Your task to perform on an android device: turn notification dots off Image 0: 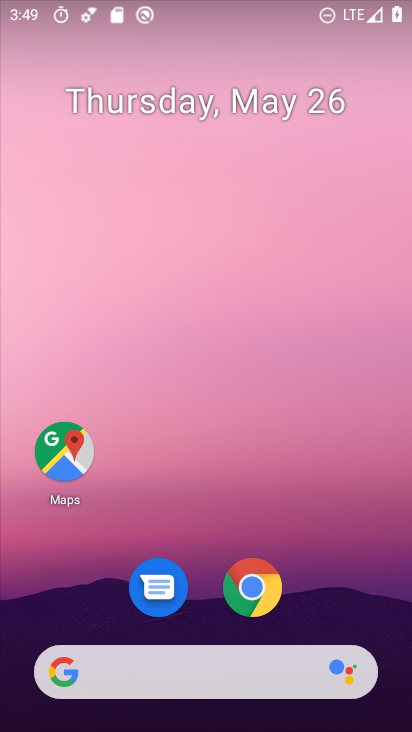
Step 0: drag from (317, 528) to (298, 170)
Your task to perform on an android device: turn notification dots off Image 1: 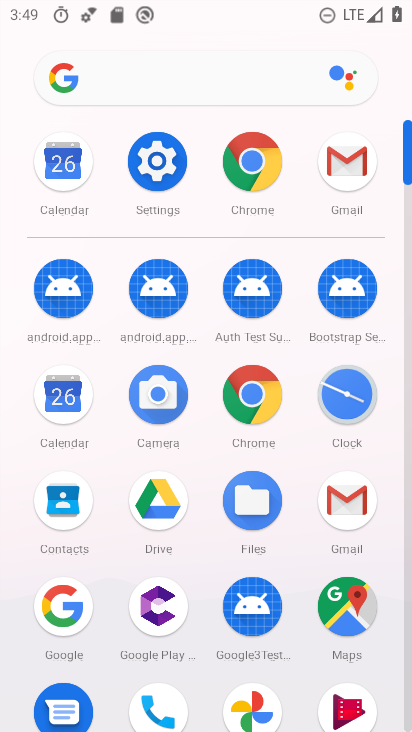
Step 1: click (175, 167)
Your task to perform on an android device: turn notification dots off Image 2: 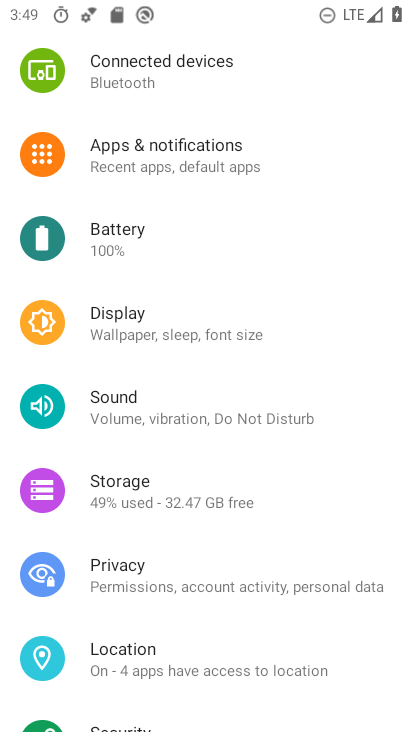
Step 2: click (191, 165)
Your task to perform on an android device: turn notification dots off Image 3: 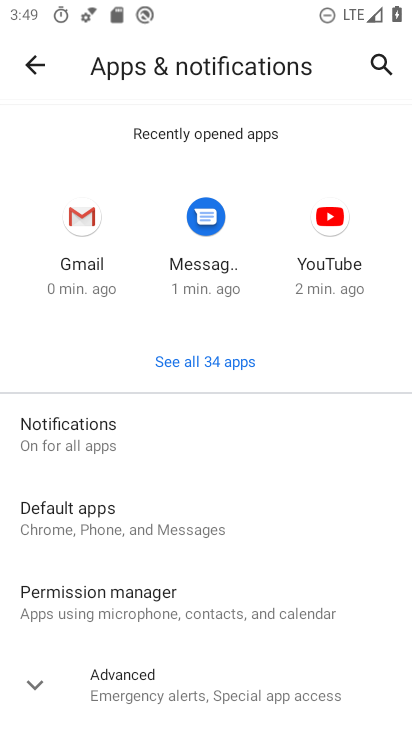
Step 3: click (92, 410)
Your task to perform on an android device: turn notification dots off Image 4: 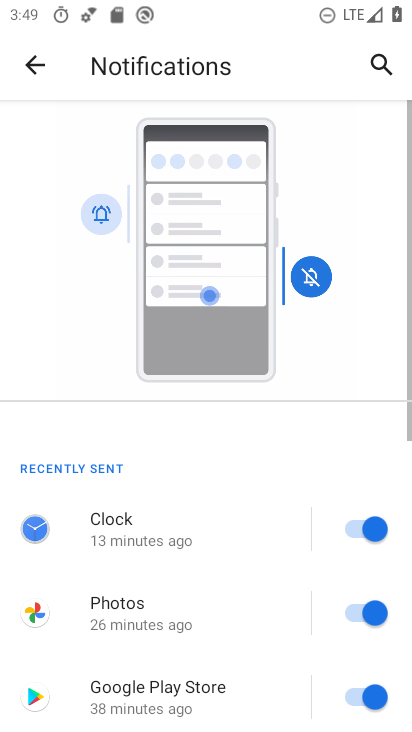
Step 4: drag from (189, 494) to (246, 83)
Your task to perform on an android device: turn notification dots off Image 5: 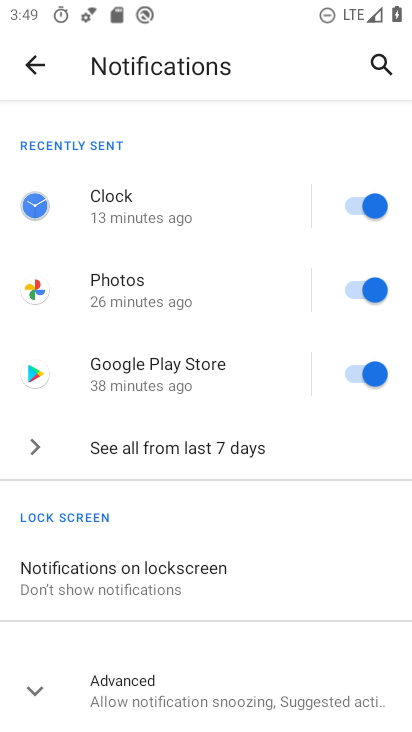
Step 5: drag from (212, 550) to (246, 174)
Your task to perform on an android device: turn notification dots off Image 6: 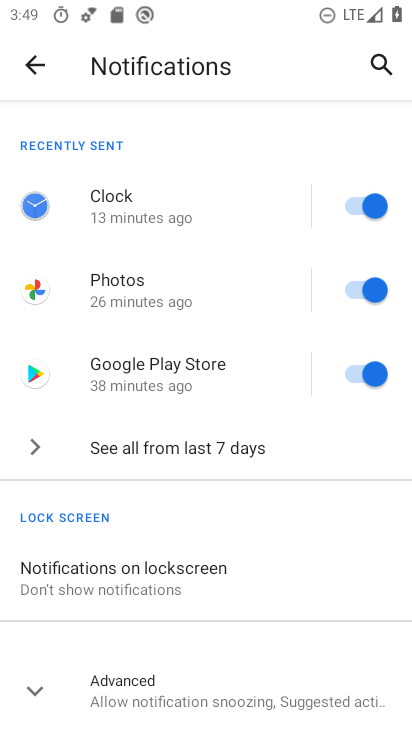
Step 6: click (161, 715)
Your task to perform on an android device: turn notification dots off Image 7: 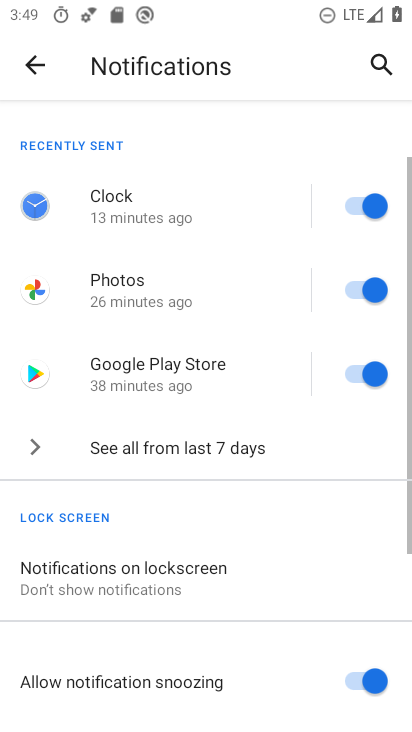
Step 7: drag from (268, 635) to (225, 157)
Your task to perform on an android device: turn notification dots off Image 8: 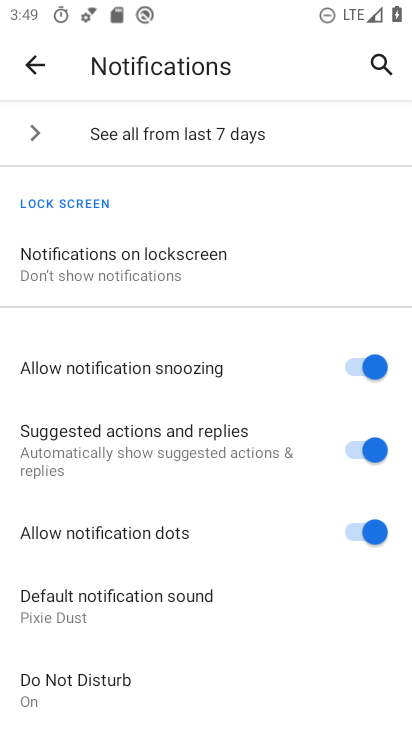
Step 8: click (372, 526)
Your task to perform on an android device: turn notification dots off Image 9: 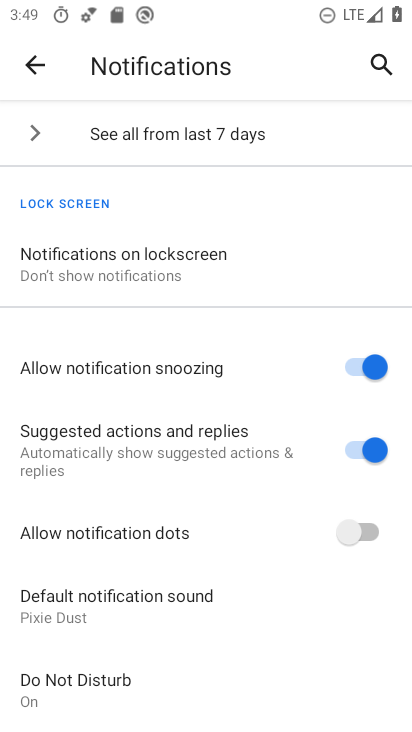
Step 9: task complete